Your task to perform on an android device: Go to Reddit.com Image 0: 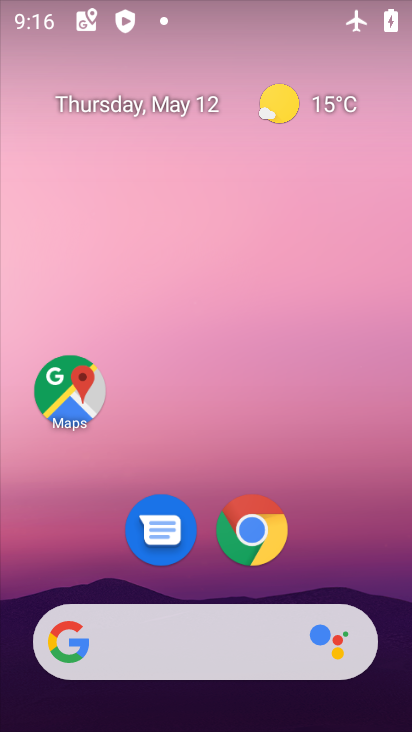
Step 0: click (330, 655)
Your task to perform on an android device: Go to Reddit.com Image 1: 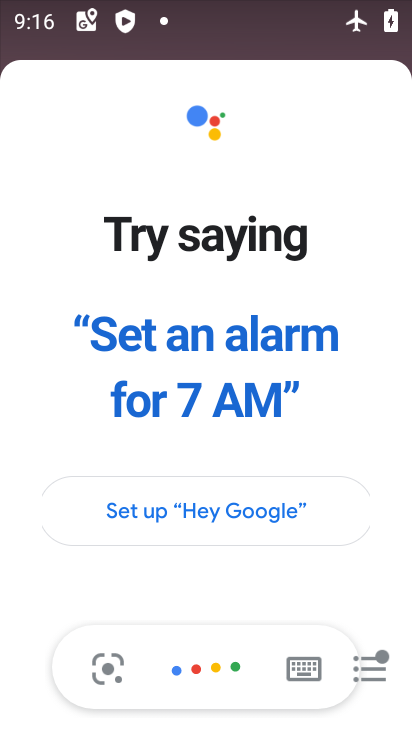
Step 1: press home button
Your task to perform on an android device: Go to Reddit.com Image 2: 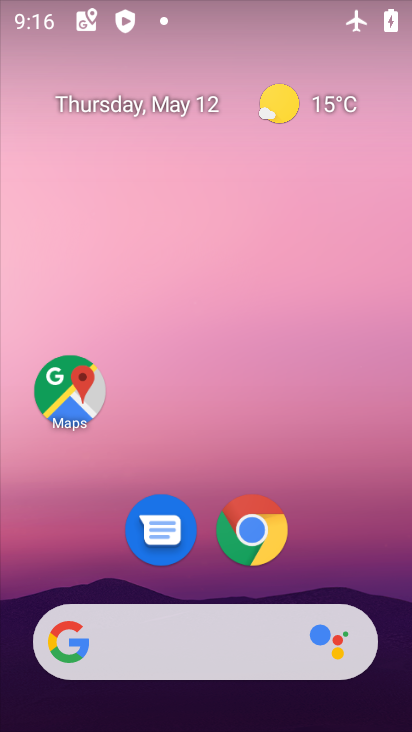
Step 2: click (176, 654)
Your task to perform on an android device: Go to Reddit.com Image 3: 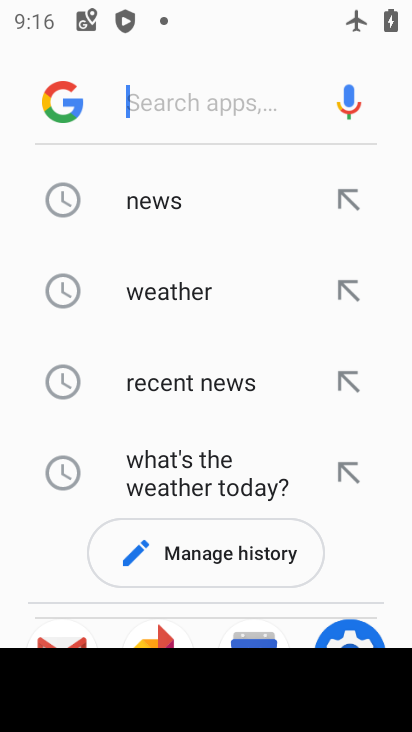
Step 3: type "reddit.com"
Your task to perform on an android device: Go to Reddit.com Image 4: 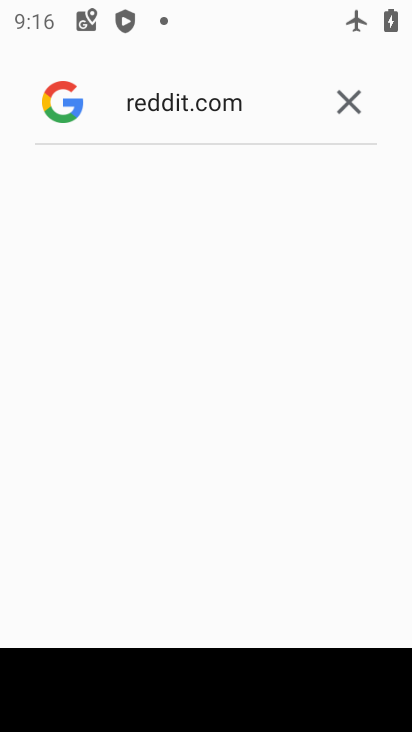
Step 4: task complete